Your task to perform on an android device: choose inbox layout in the gmail app Image 0: 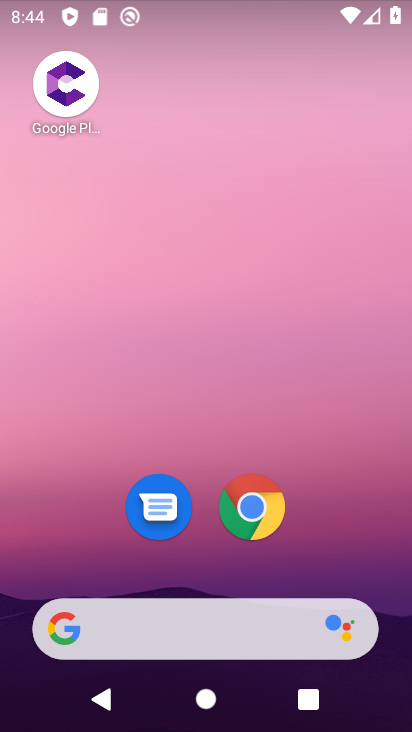
Step 0: drag from (319, 587) to (199, 139)
Your task to perform on an android device: choose inbox layout in the gmail app Image 1: 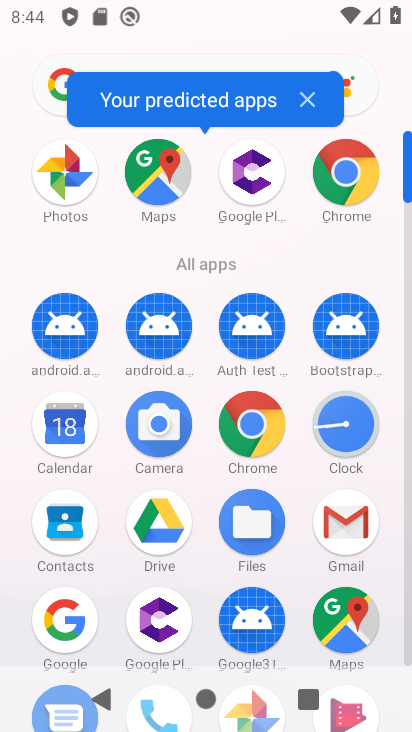
Step 1: click (351, 529)
Your task to perform on an android device: choose inbox layout in the gmail app Image 2: 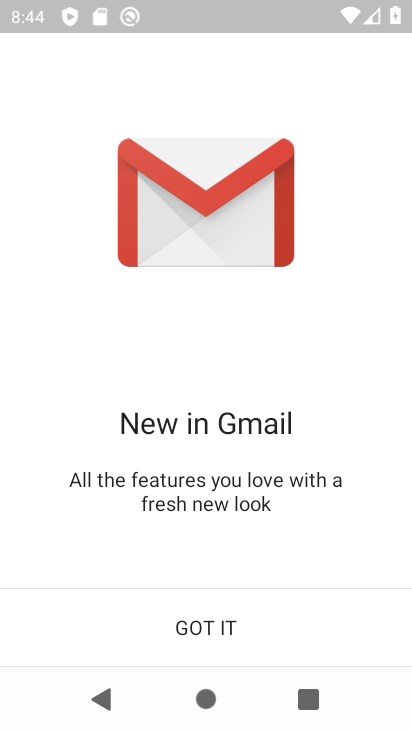
Step 2: click (200, 629)
Your task to perform on an android device: choose inbox layout in the gmail app Image 3: 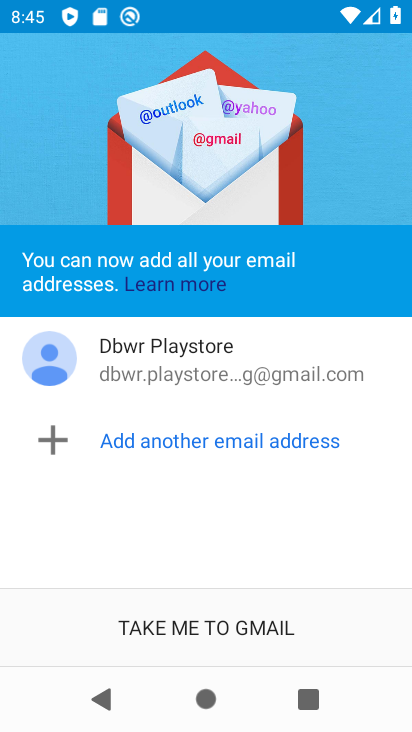
Step 3: click (200, 629)
Your task to perform on an android device: choose inbox layout in the gmail app Image 4: 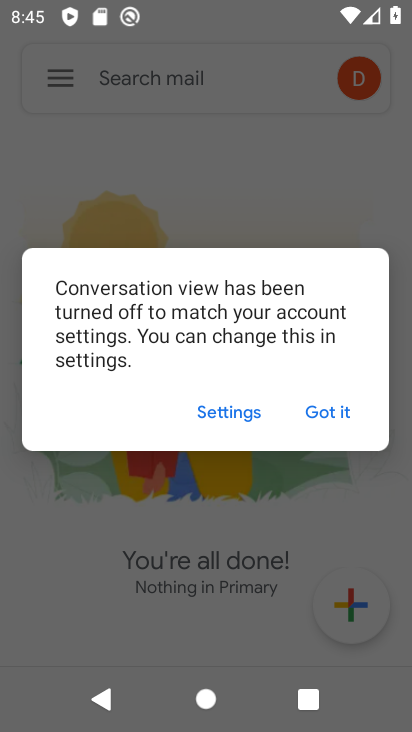
Step 4: click (336, 410)
Your task to perform on an android device: choose inbox layout in the gmail app Image 5: 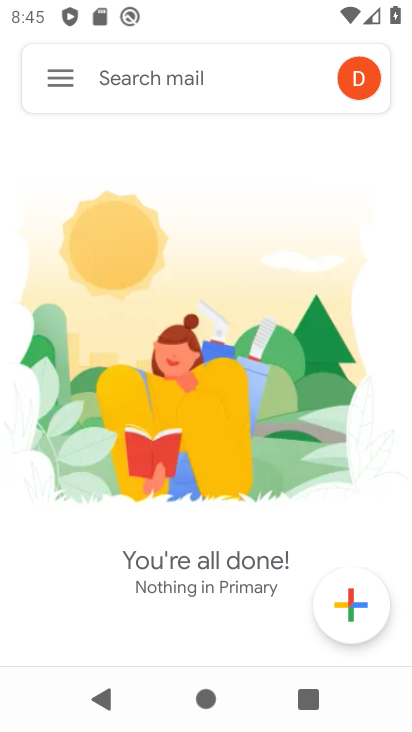
Step 5: click (70, 88)
Your task to perform on an android device: choose inbox layout in the gmail app Image 6: 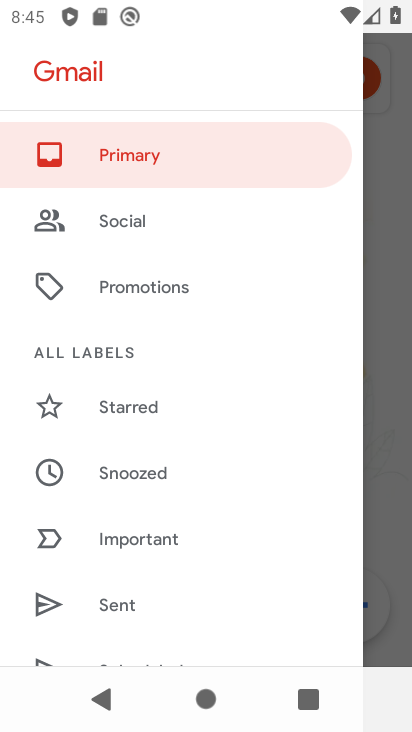
Step 6: drag from (253, 639) to (127, 101)
Your task to perform on an android device: choose inbox layout in the gmail app Image 7: 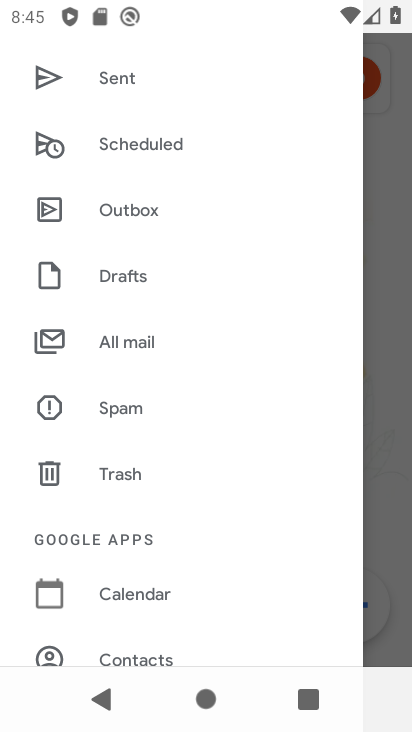
Step 7: drag from (188, 644) to (154, 341)
Your task to perform on an android device: choose inbox layout in the gmail app Image 8: 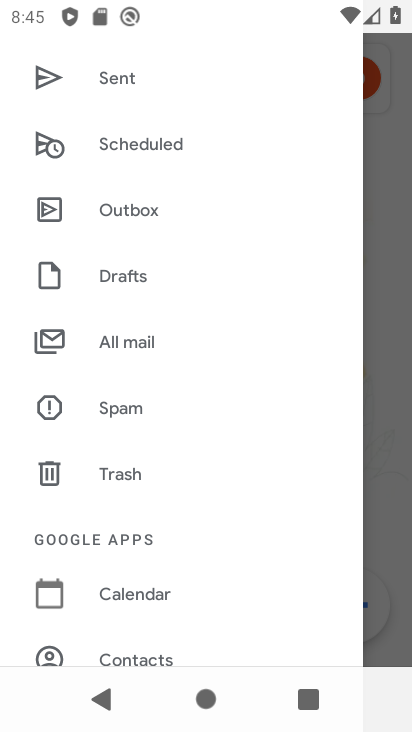
Step 8: drag from (207, 625) to (227, 305)
Your task to perform on an android device: choose inbox layout in the gmail app Image 9: 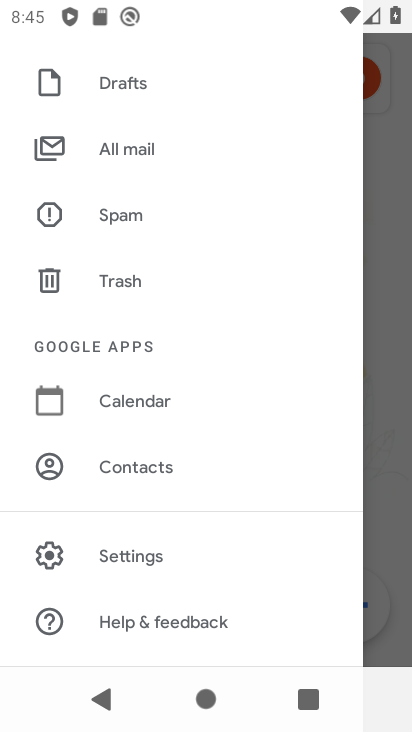
Step 9: click (185, 573)
Your task to perform on an android device: choose inbox layout in the gmail app Image 10: 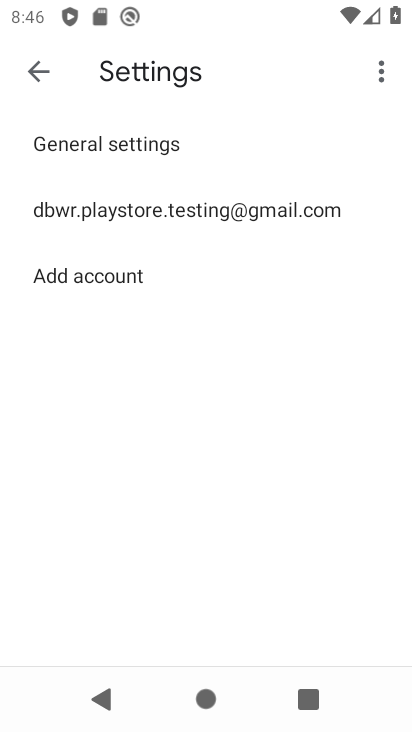
Step 10: click (277, 205)
Your task to perform on an android device: choose inbox layout in the gmail app Image 11: 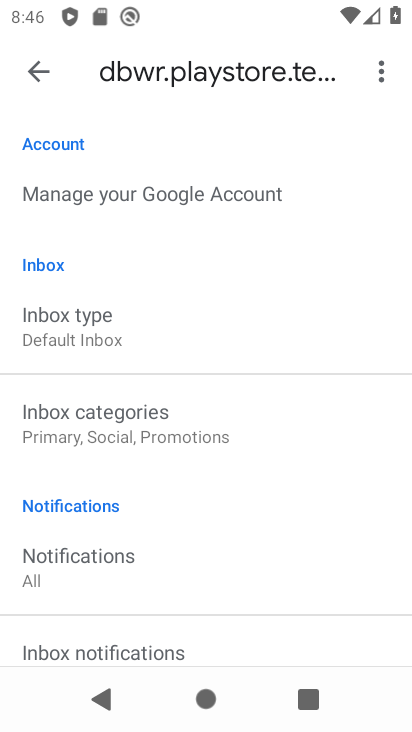
Step 11: click (193, 326)
Your task to perform on an android device: choose inbox layout in the gmail app Image 12: 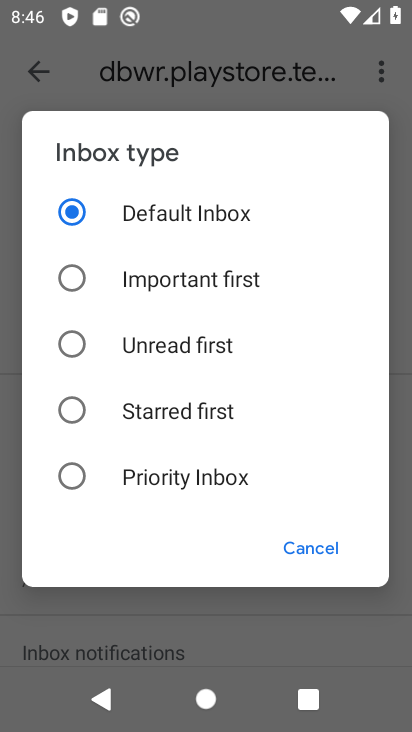
Step 12: click (192, 328)
Your task to perform on an android device: choose inbox layout in the gmail app Image 13: 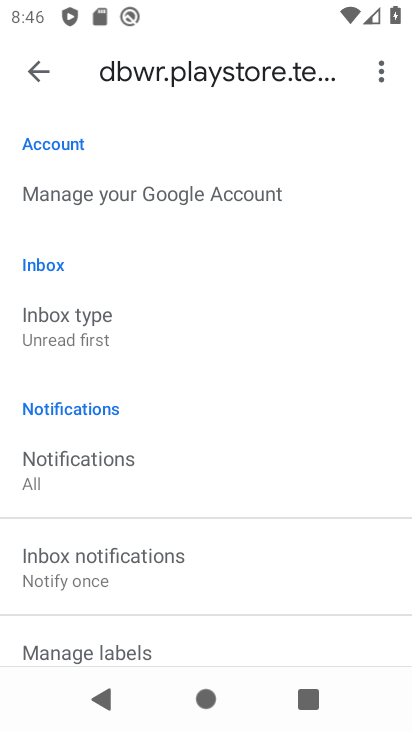
Step 13: task complete